Your task to perform on an android device: toggle show notifications on the lock screen Image 0: 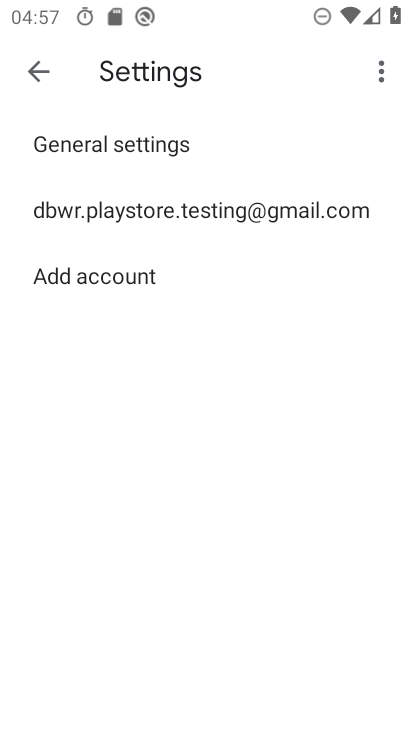
Step 0: drag from (343, 576) to (279, 140)
Your task to perform on an android device: toggle show notifications on the lock screen Image 1: 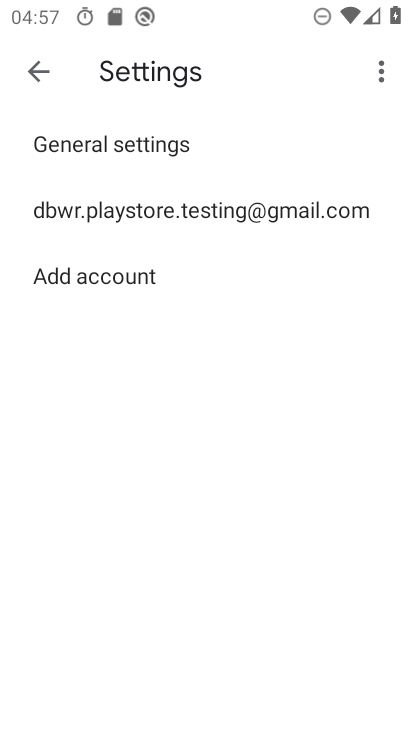
Step 1: press home button
Your task to perform on an android device: toggle show notifications on the lock screen Image 2: 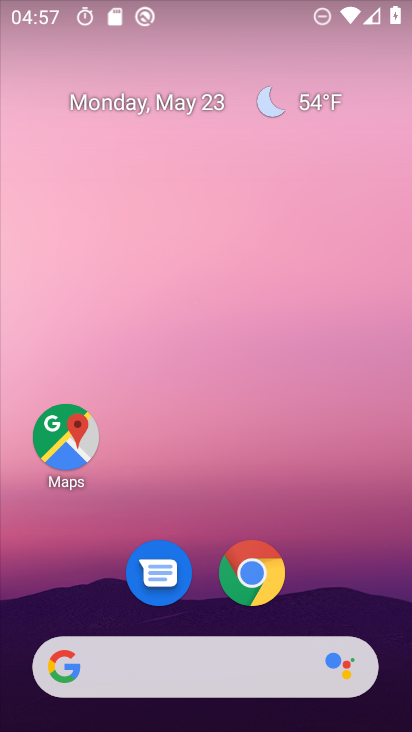
Step 2: drag from (347, 566) to (290, 0)
Your task to perform on an android device: toggle show notifications on the lock screen Image 3: 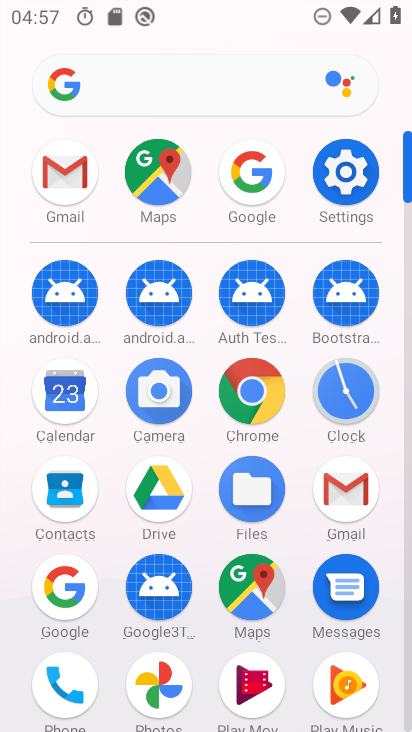
Step 3: click (330, 176)
Your task to perform on an android device: toggle show notifications on the lock screen Image 4: 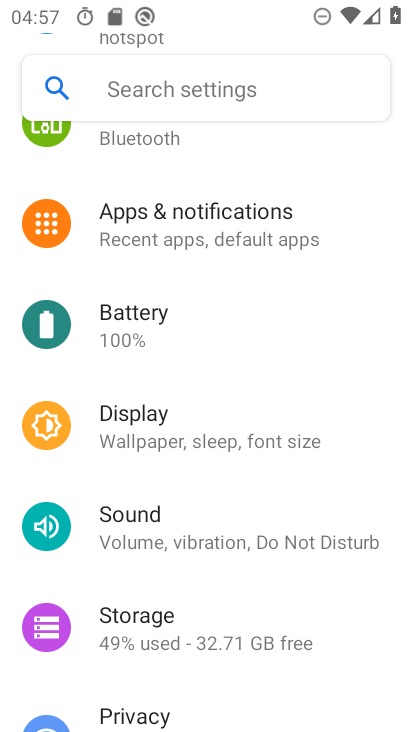
Step 4: click (230, 229)
Your task to perform on an android device: toggle show notifications on the lock screen Image 5: 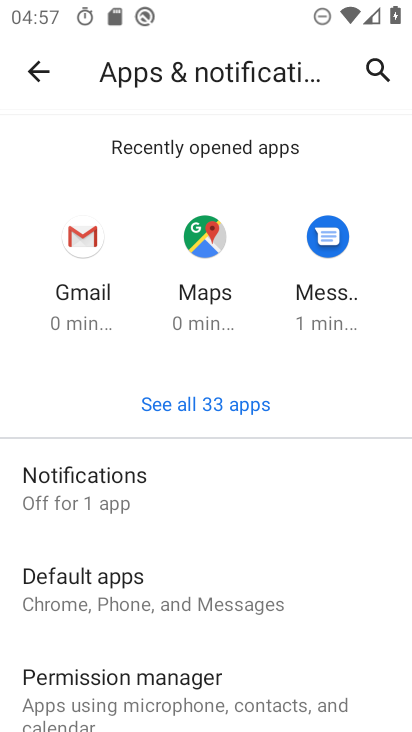
Step 5: click (143, 491)
Your task to perform on an android device: toggle show notifications on the lock screen Image 6: 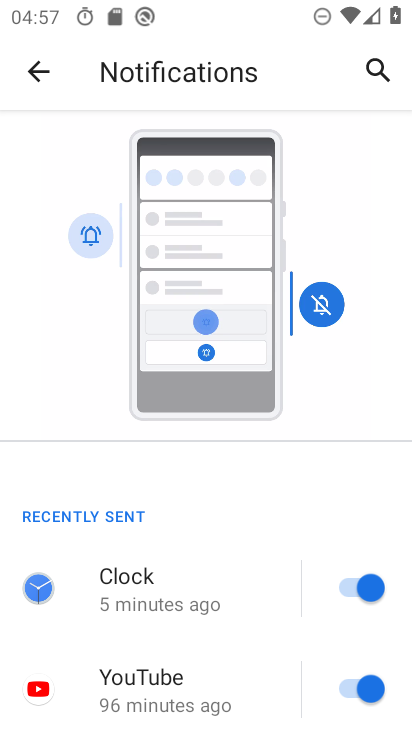
Step 6: drag from (260, 676) to (233, 306)
Your task to perform on an android device: toggle show notifications on the lock screen Image 7: 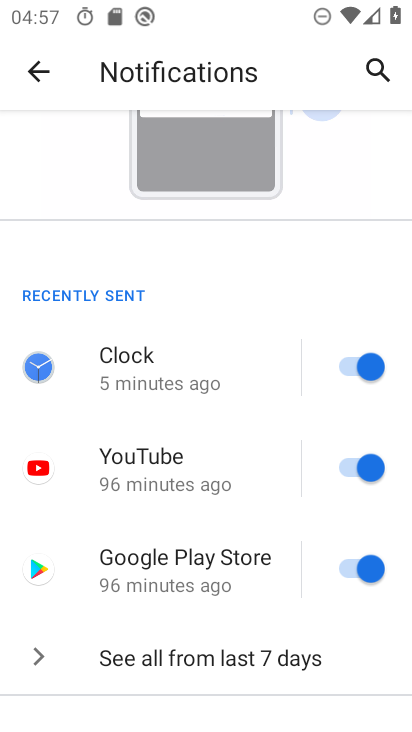
Step 7: drag from (266, 617) to (241, 208)
Your task to perform on an android device: toggle show notifications on the lock screen Image 8: 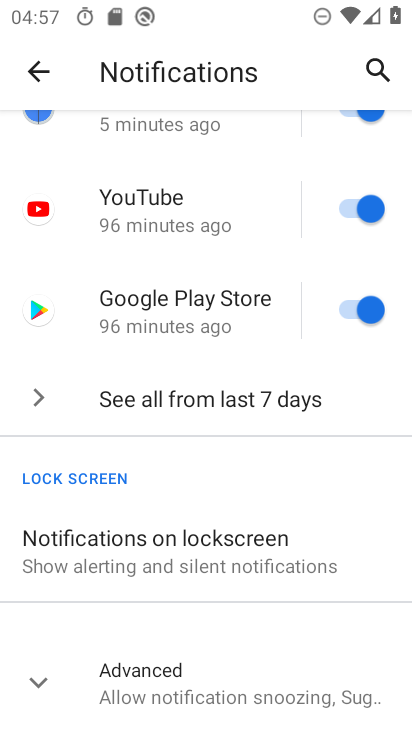
Step 8: click (228, 561)
Your task to perform on an android device: toggle show notifications on the lock screen Image 9: 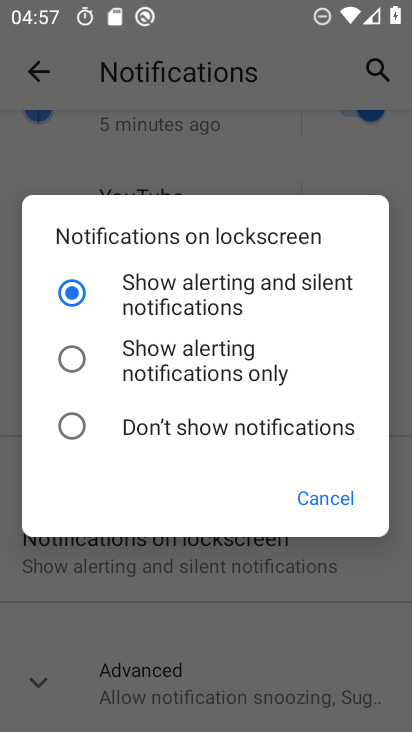
Step 9: click (71, 351)
Your task to perform on an android device: toggle show notifications on the lock screen Image 10: 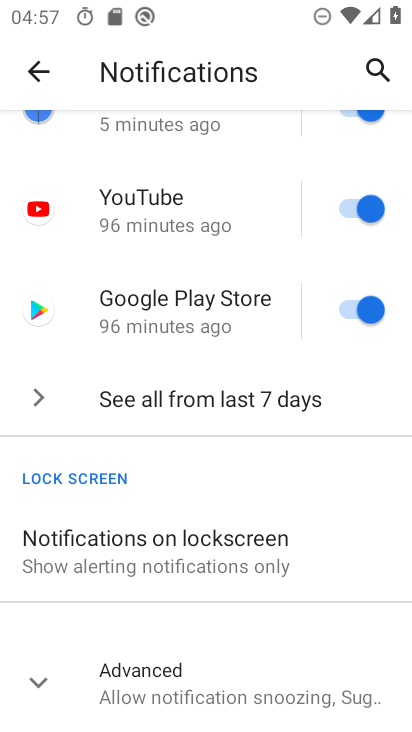
Step 10: task complete